Your task to perform on an android device: change alarm snooze length Image 0: 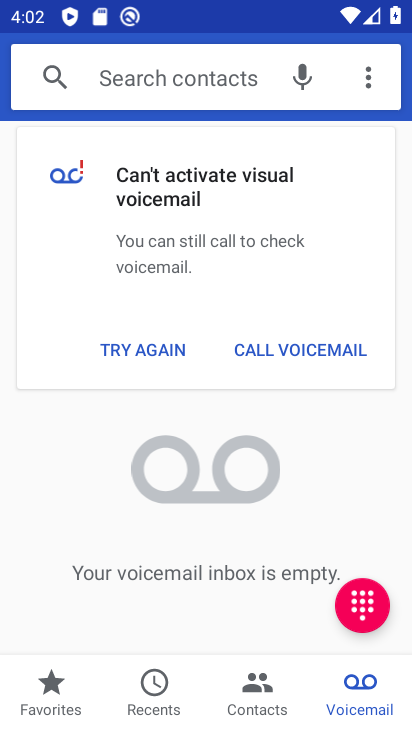
Step 0: press home button
Your task to perform on an android device: change alarm snooze length Image 1: 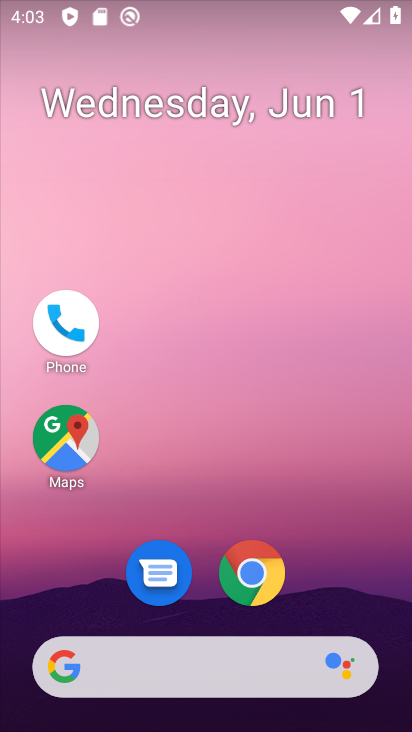
Step 1: click (255, 11)
Your task to perform on an android device: change alarm snooze length Image 2: 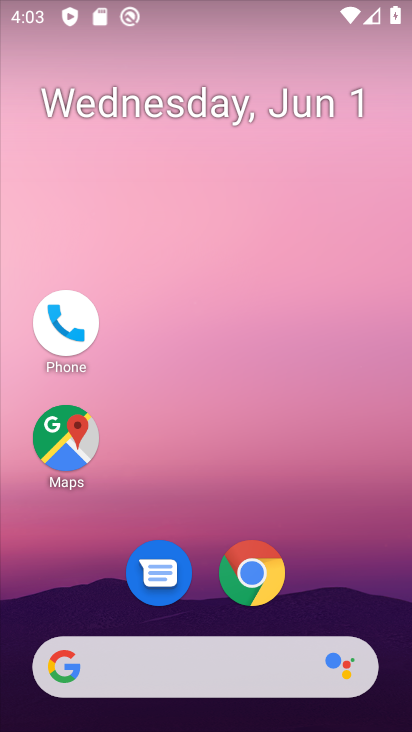
Step 2: drag from (218, 602) to (186, 34)
Your task to perform on an android device: change alarm snooze length Image 3: 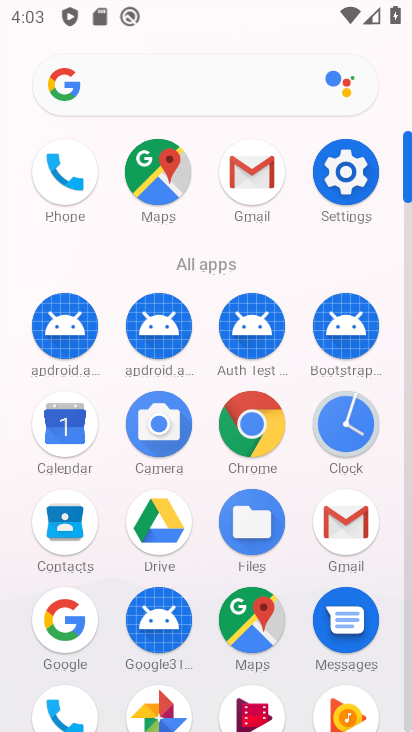
Step 3: click (344, 420)
Your task to perform on an android device: change alarm snooze length Image 4: 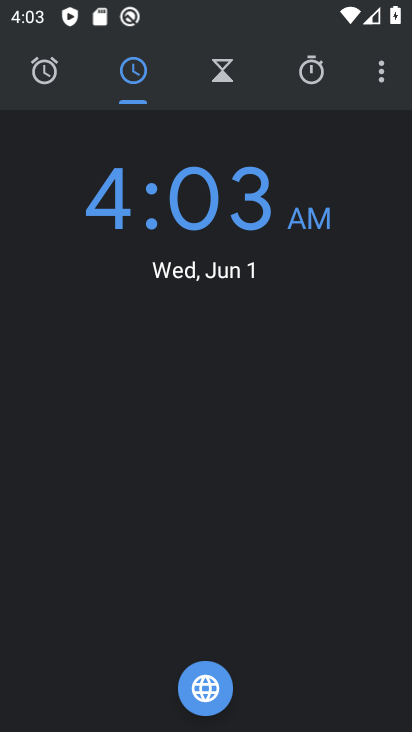
Step 4: click (383, 66)
Your task to perform on an android device: change alarm snooze length Image 5: 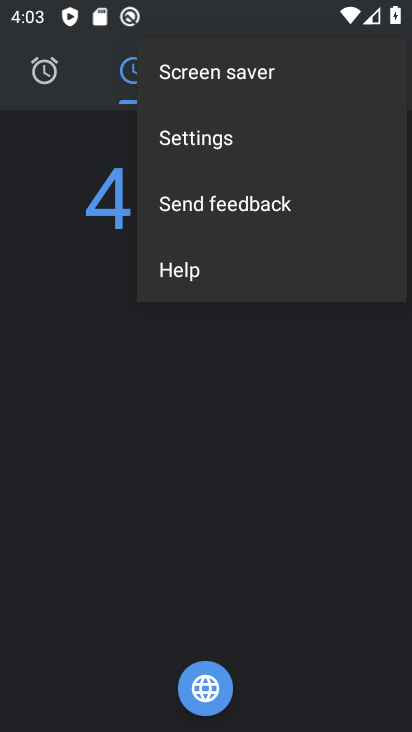
Step 5: click (269, 125)
Your task to perform on an android device: change alarm snooze length Image 6: 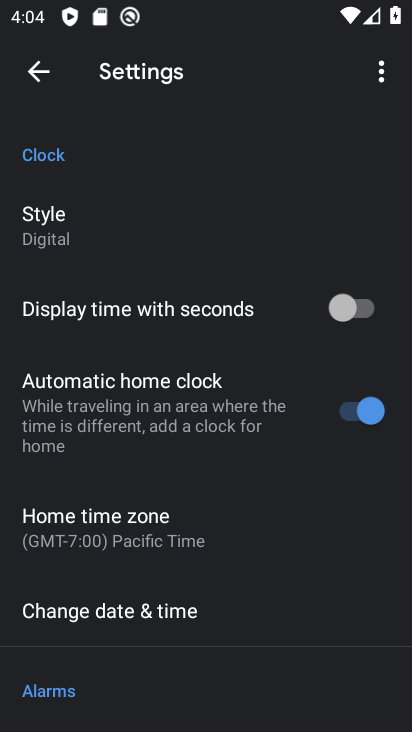
Step 6: drag from (168, 511) to (189, 94)
Your task to perform on an android device: change alarm snooze length Image 7: 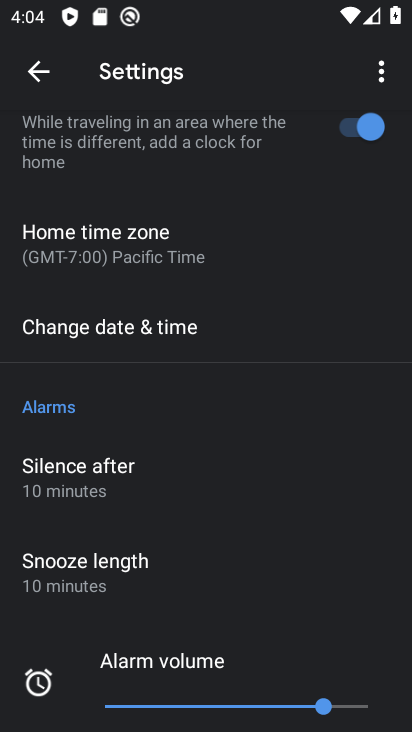
Step 7: click (103, 567)
Your task to perform on an android device: change alarm snooze length Image 8: 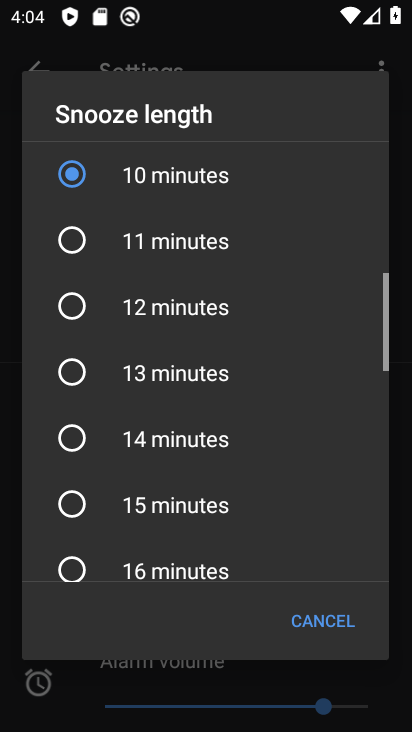
Step 8: click (103, 567)
Your task to perform on an android device: change alarm snooze length Image 9: 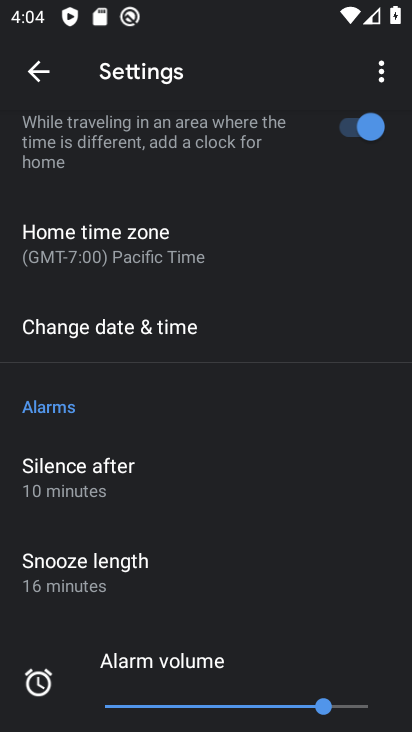
Step 9: task complete